Your task to perform on an android device: turn on wifi Image 0: 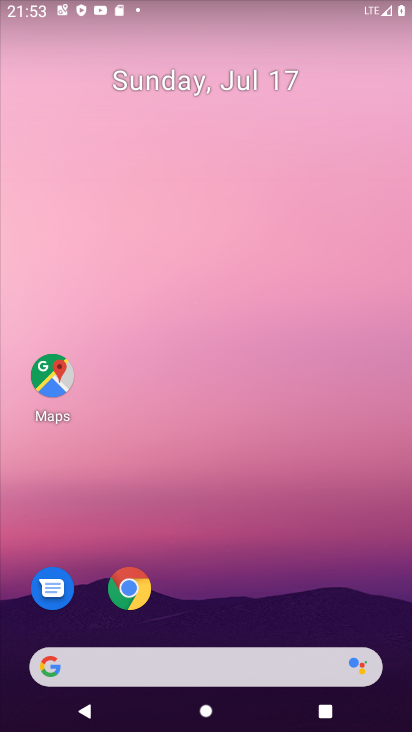
Step 0: press home button
Your task to perform on an android device: turn on wifi Image 1: 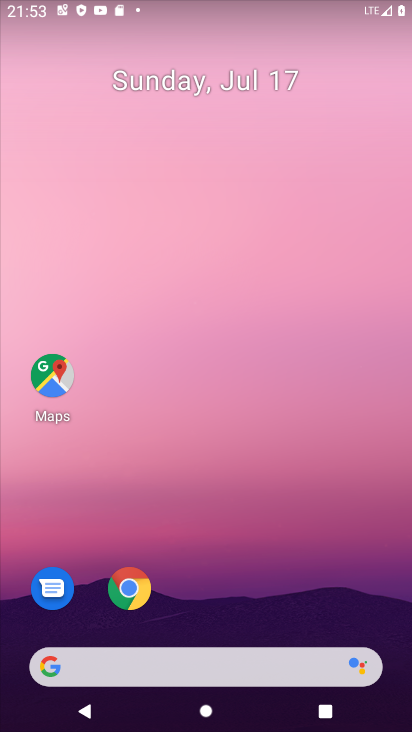
Step 1: drag from (352, 11) to (315, 666)
Your task to perform on an android device: turn on wifi Image 2: 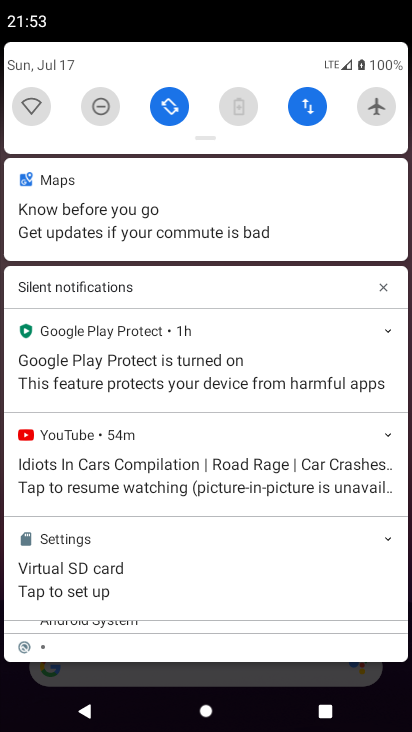
Step 2: click (26, 116)
Your task to perform on an android device: turn on wifi Image 3: 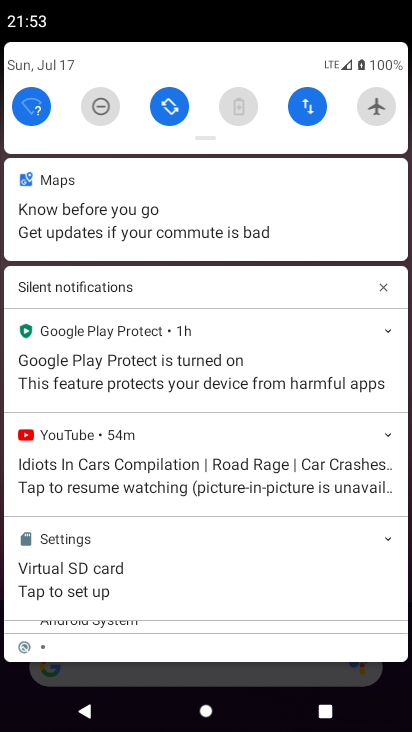
Step 3: task complete